Your task to perform on an android device: open chrome and create a bookmark for the current page Image 0: 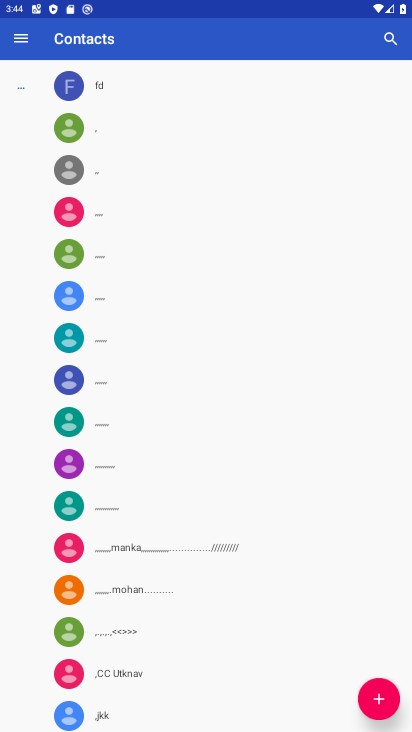
Step 0: press home button
Your task to perform on an android device: open chrome and create a bookmark for the current page Image 1: 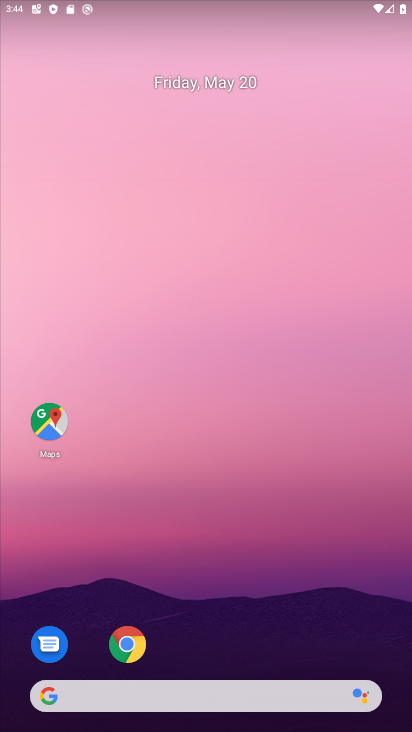
Step 1: click (119, 658)
Your task to perform on an android device: open chrome and create a bookmark for the current page Image 2: 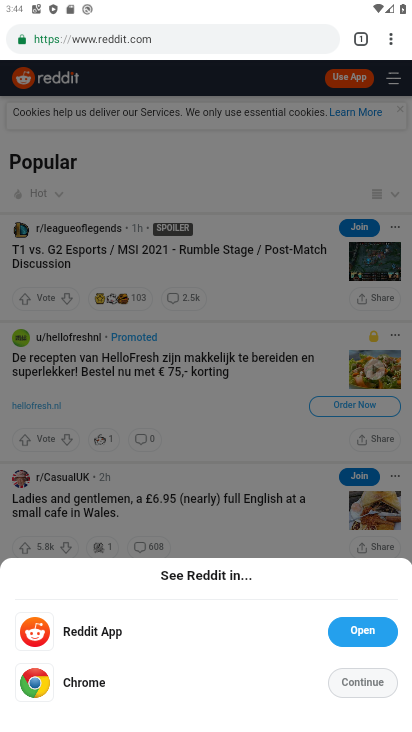
Step 2: task complete